Your task to perform on an android device: Clear the cart on costco. Image 0: 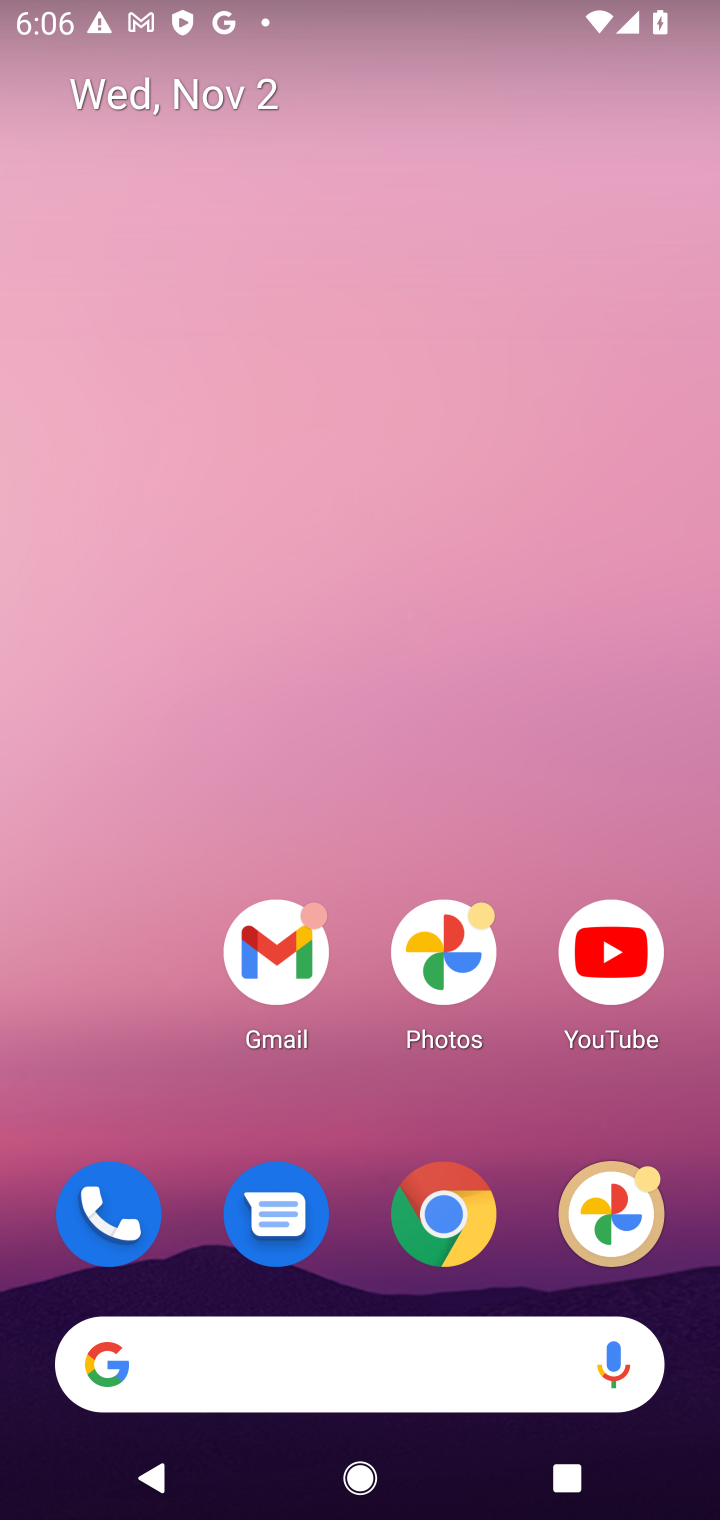
Step 0: click (453, 1222)
Your task to perform on an android device: Clear the cart on costco. Image 1: 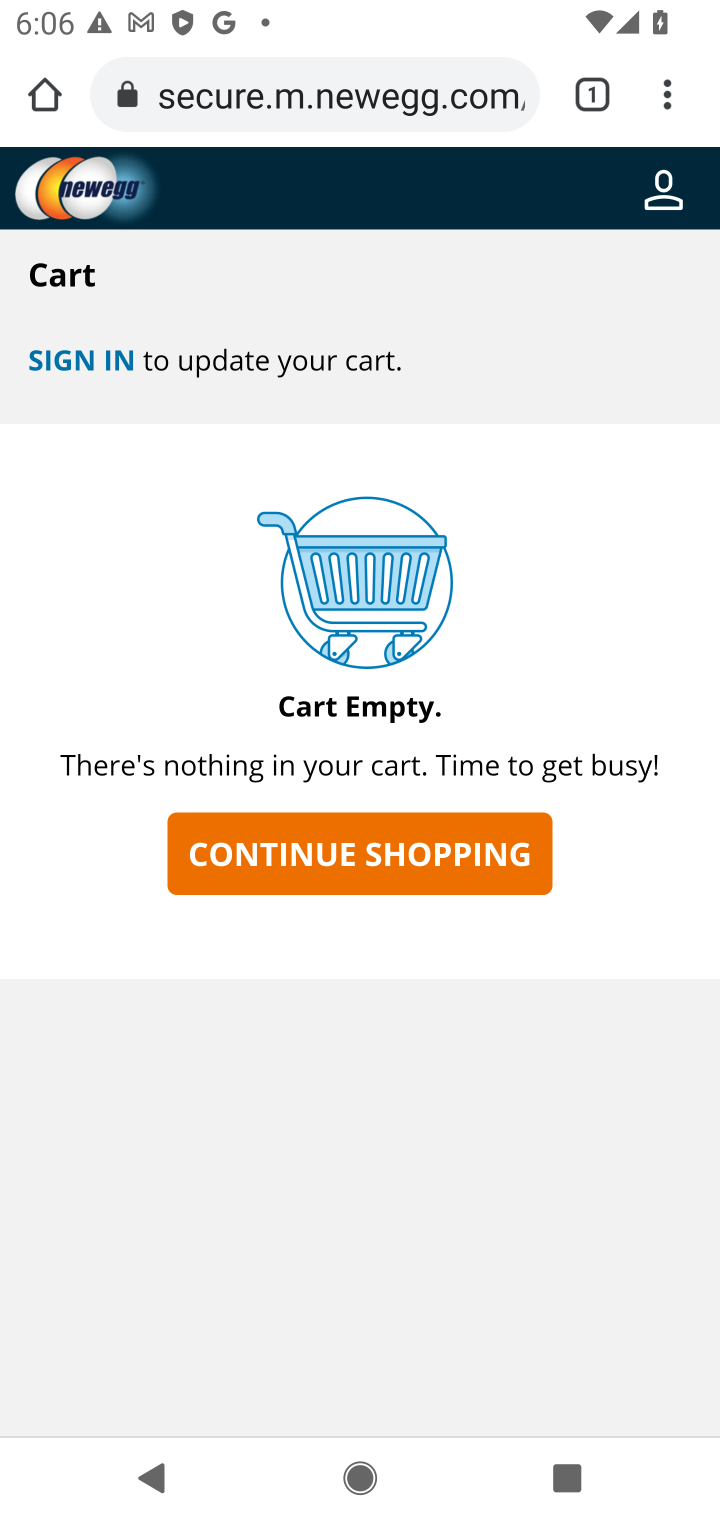
Step 1: click (359, 99)
Your task to perform on an android device: Clear the cart on costco. Image 2: 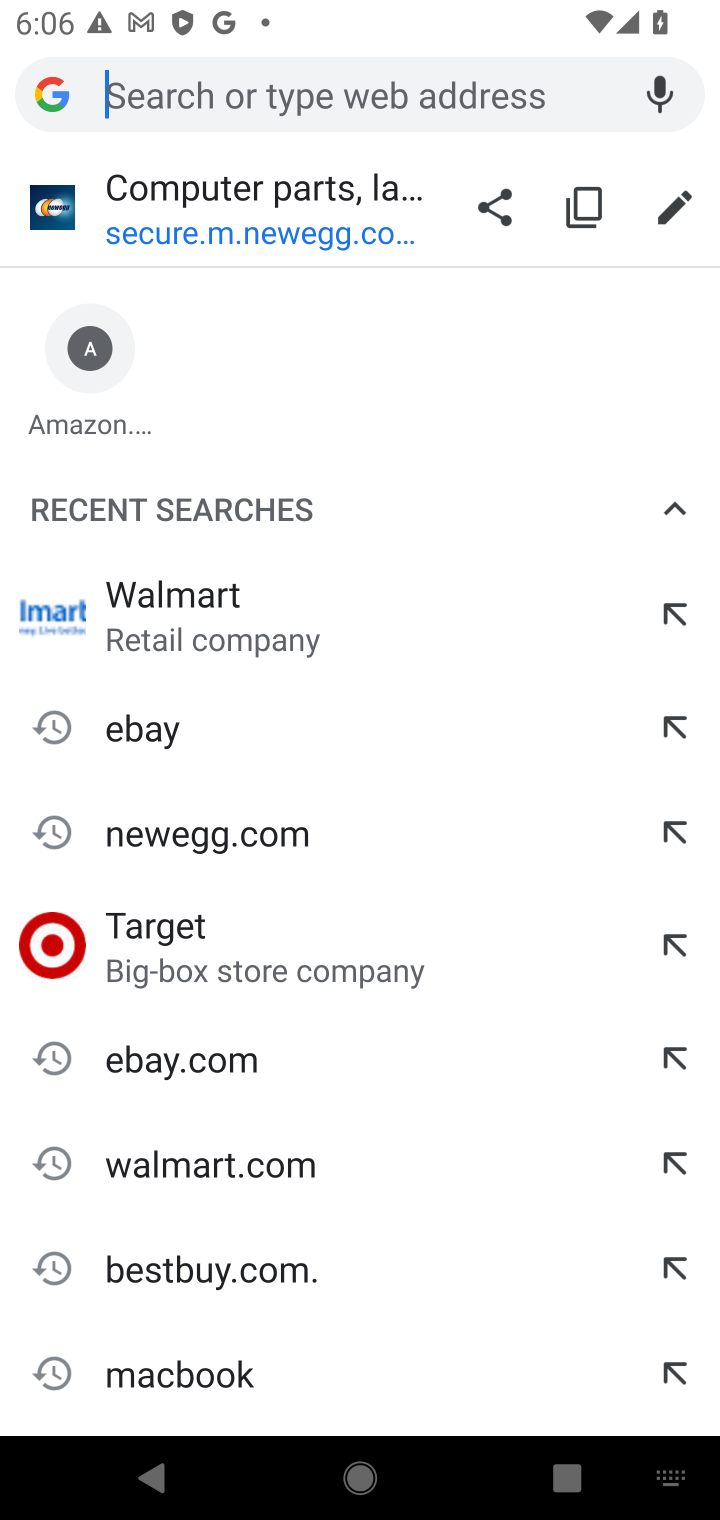
Step 2: type "costco"
Your task to perform on an android device: Clear the cart on costco. Image 3: 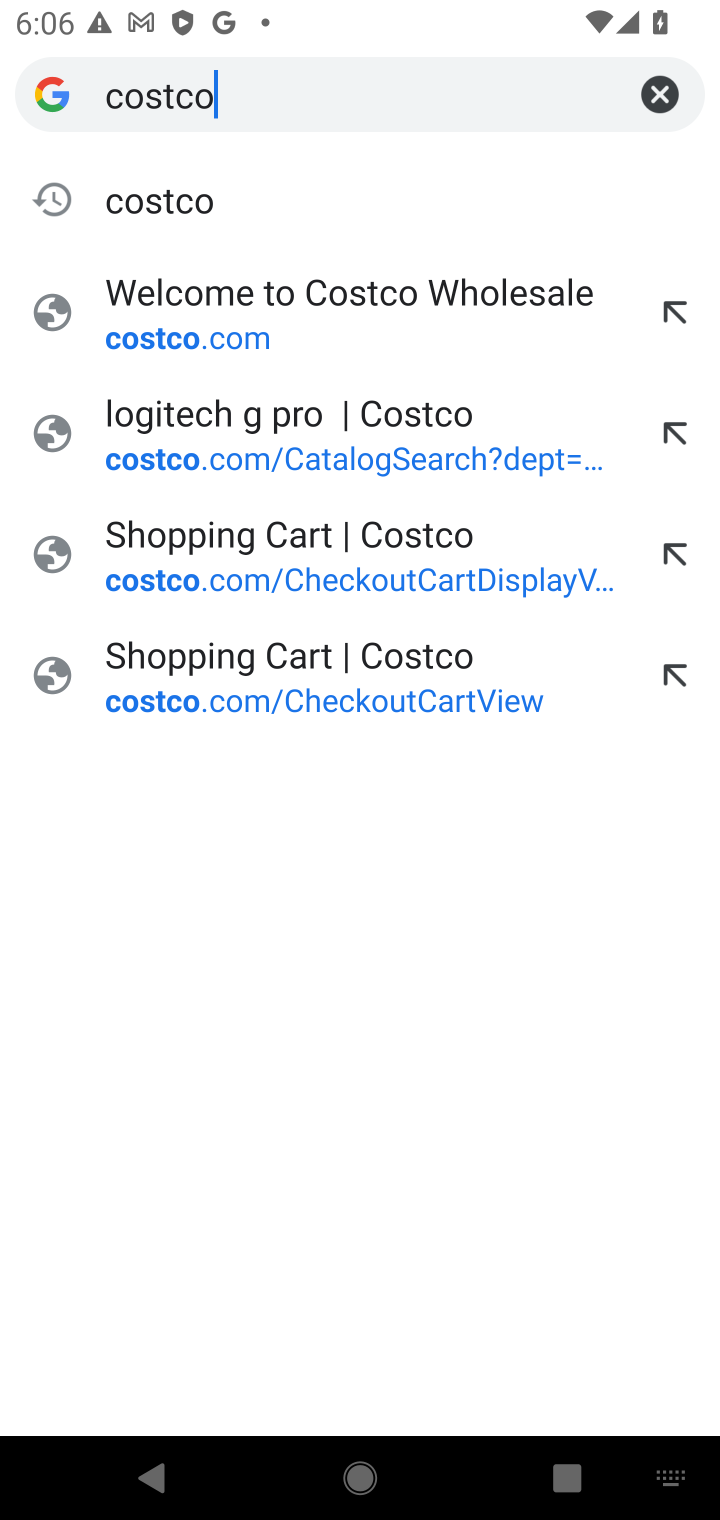
Step 3: click (172, 202)
Your task to perform on an android device: Clear the cart on costco. Image 4: 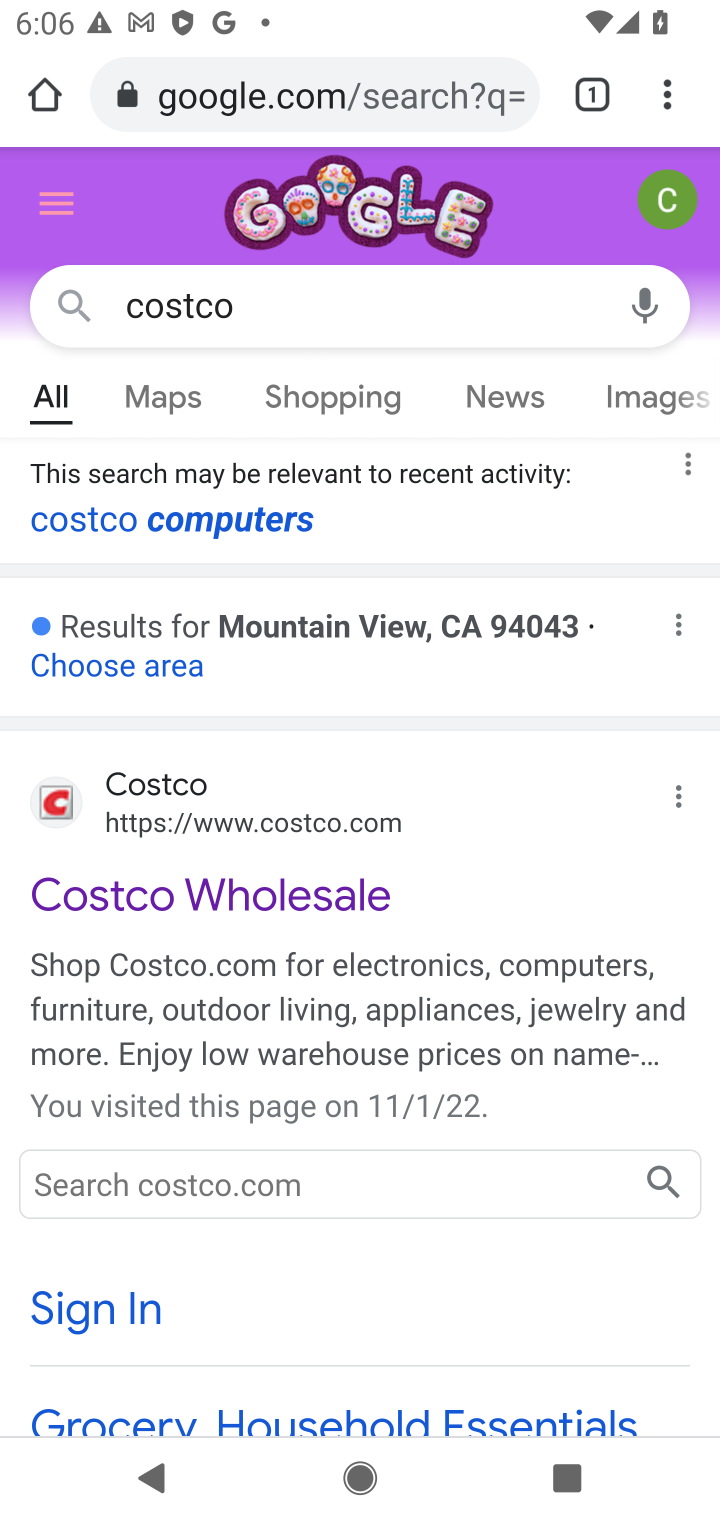
Step 4: click (254, 891)
Your task to perform on an android device: Clear the cart on costco. Image 5: 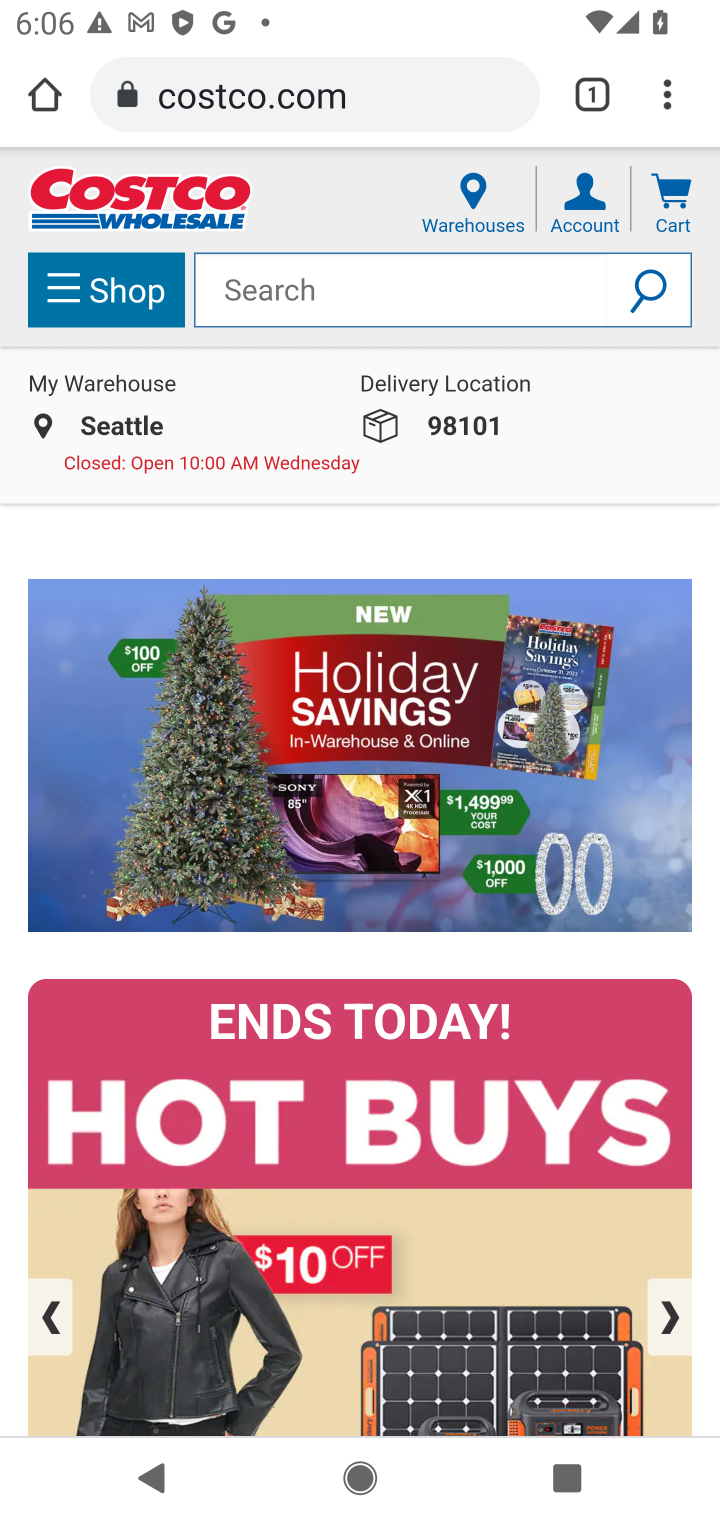
Step 5: click (673, 202)
Your task to perform on an android device: Clear the cart on costco. Image 6: 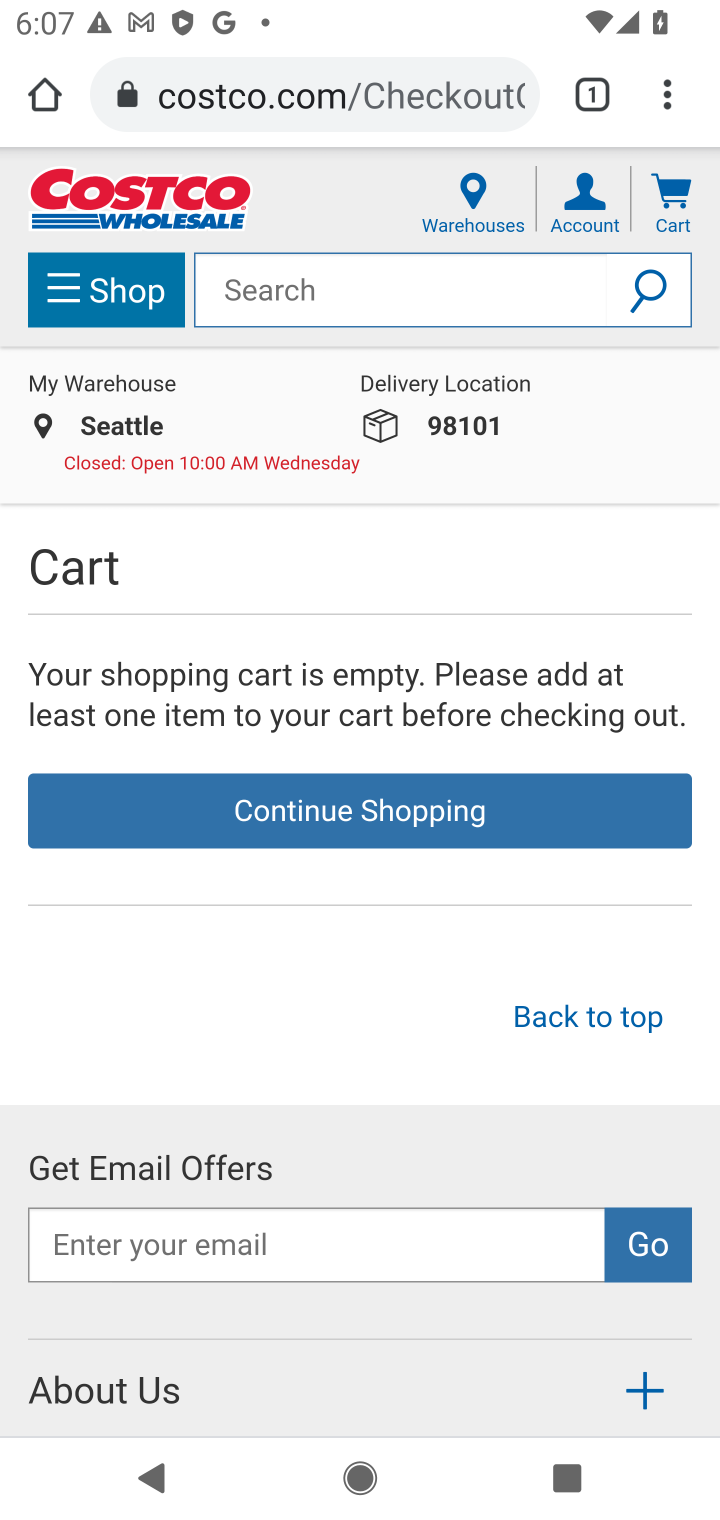
Step 6: task complete